Your task to perform on an android device: Go to settings Image 0: 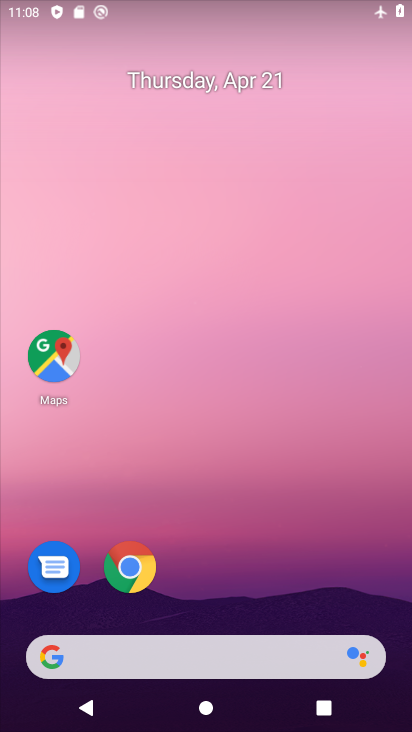
Step 0: drag from (204, 587) to (320, 6)
Your task to perform on an android device: Go to settings Image 1: 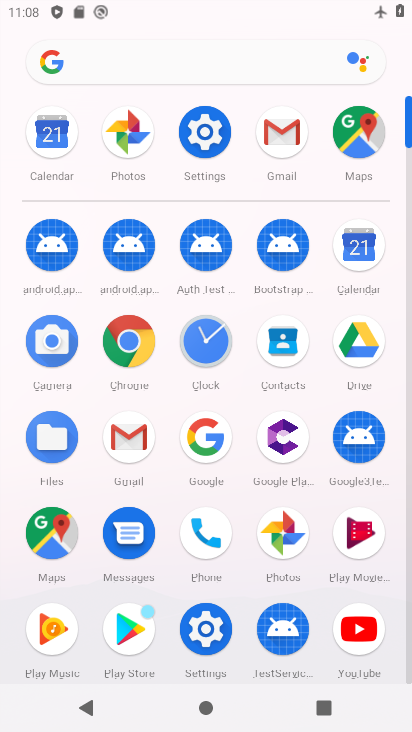
Step 1: click (209, 145)
Your task to perform on an android device: Go to settings Image 2: 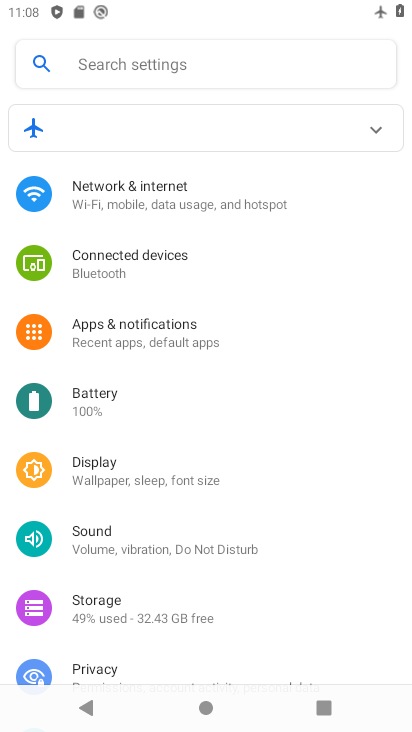
Step 2: task complete